Your task to perform on an android device: turn off notifications settings in the gmail app Image 0: 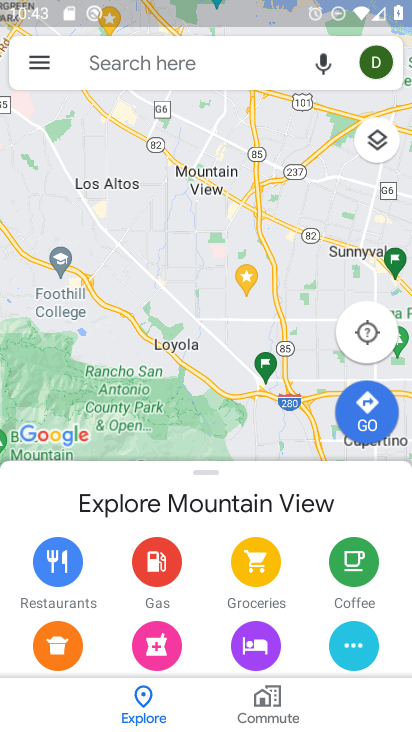
Step 0: press home button
Your task to perform on an android device: turn off notifications settings in the gmail app Image 1: 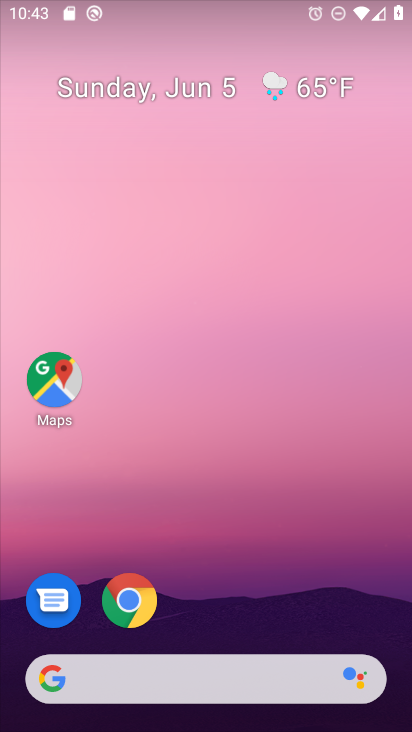
Step 1: drag from (398, 619) to (241, 18)
Your task to perform on an android device: turn off notifications settings in the gmail app Image 2: 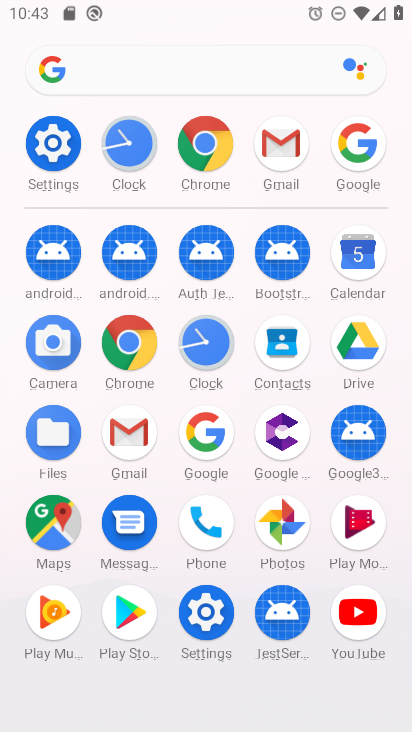
Step 2: click (123, 454)
Your task to perform on an android device: turn off notifications settings in the gmail app Image 3: 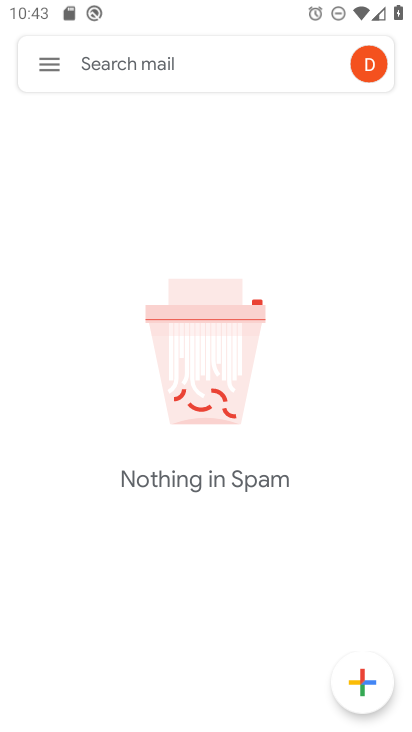
Step 3: click (53, 71)
Your task to perform on an android device: turn off notifications settings in the gmail app Image 4: 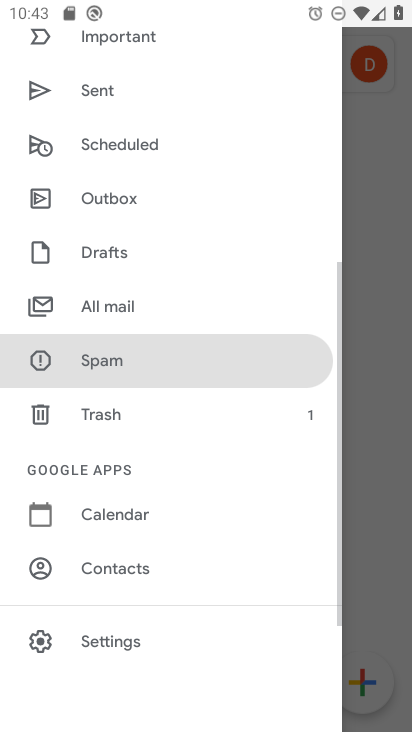
Step 4: click (139, 634)
Your task to perform on an android device: turn off notifications settings in the gmail app Image 5: 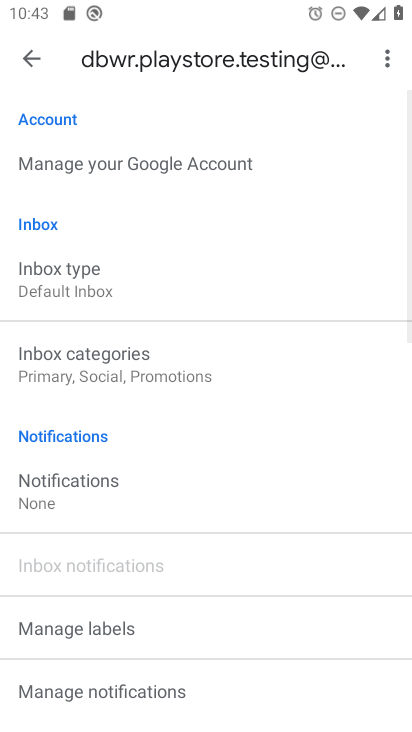
Step 5: click (95, 512)
Your task to perform on an android device: turn off notifications settings in the gmail app Image 6: 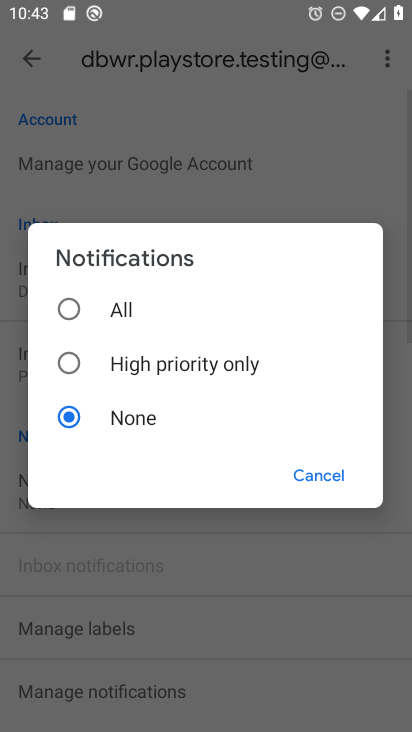
Step 6: click (123, 415)
Your task to perform on an android device: turn off notifications settings in the gmail app Image 7: 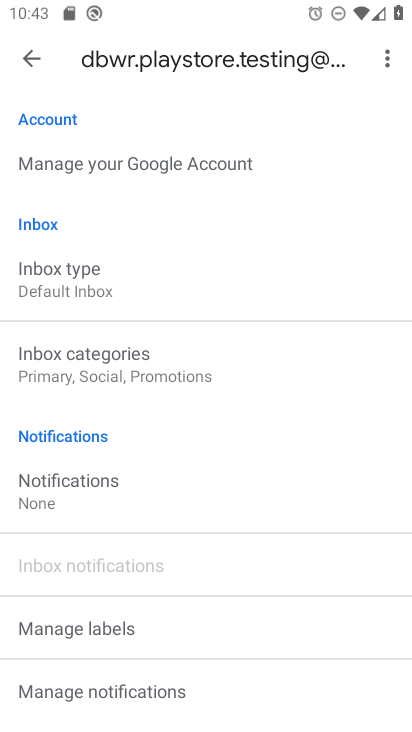
Step 7: task complete